Your task to perform on an android device: Open maps Image 0: 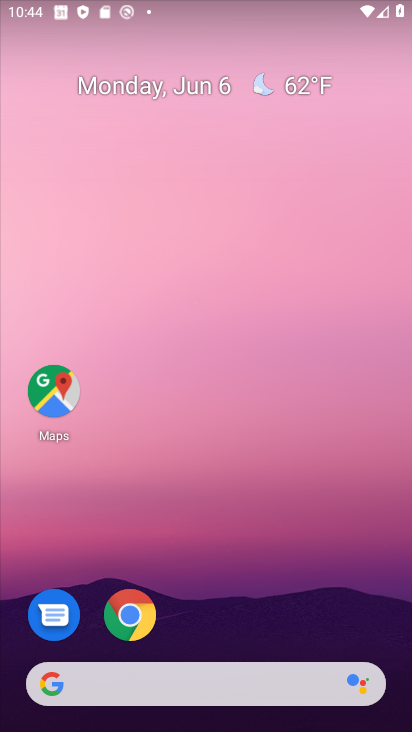
Step 0: click (70, 416)
Your task to perform on an android device: Open maps Image 1: 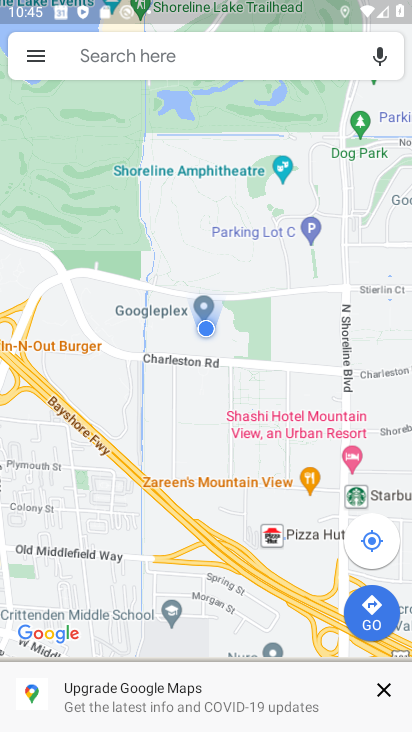
Step 1: task complete